Your task to perform on an android device: What's the weather going to be tomorrow? Image 0: 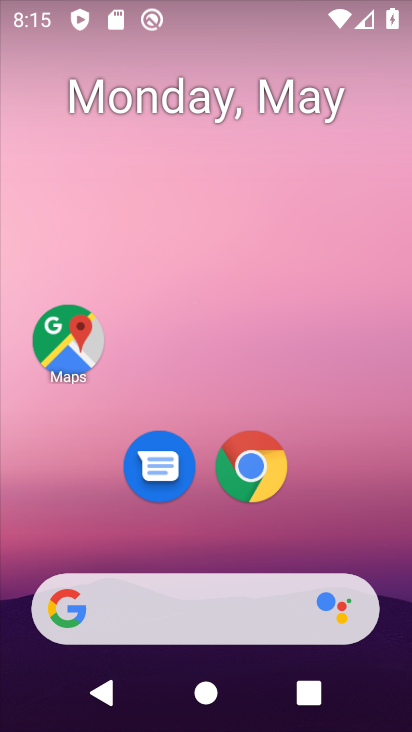
Step 0: click (156, 600)
Your task to perform on an android device: What's the weather going to be tomorrow? Image 1: 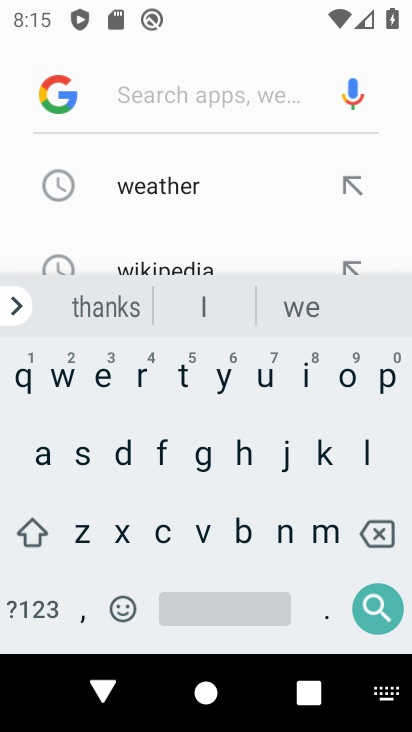
Step 1: click (142, 194)
Your task to perform on an android device: What's the weather going to be tomorrow? Image 2: 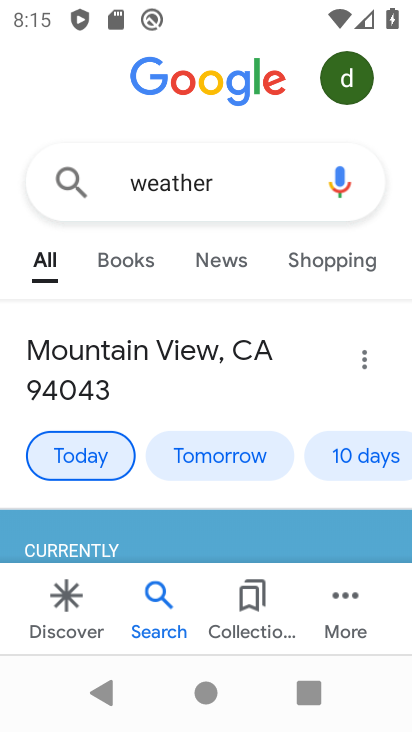
Step 2: click (220, 458)
Your task to perform on an android device: What's the weather going to be tomorrow? Image 3: 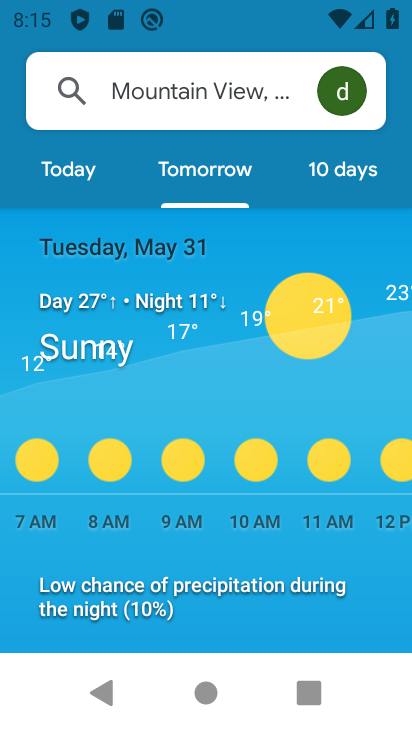
Step 3: task complete